Your task to perform on an android device: turn off picture-in-picture Image 0: 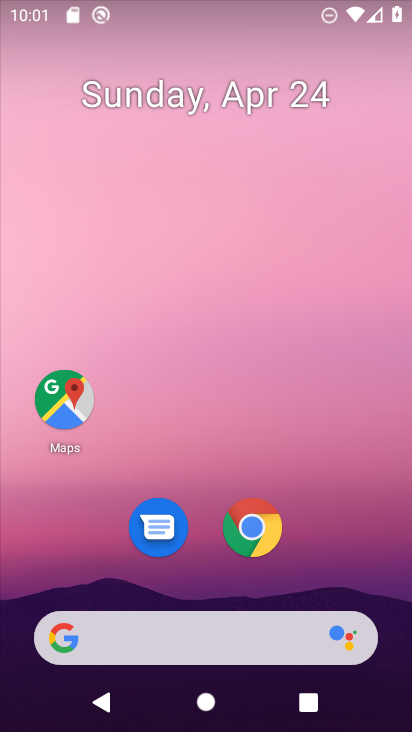
Step 0: drag from (402, 623) to (269, 26)
Your task to perform on an android device: turn off picture-in-picture Image 1: 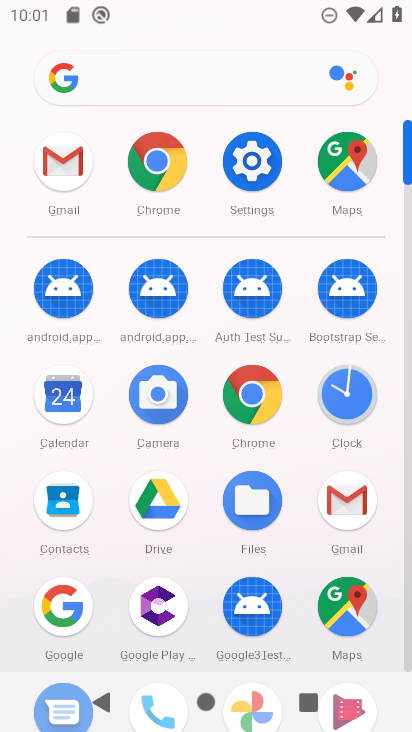
Step 1: click (274, 397)
Your task to perform on an android device: turn off picture-in-picture Image 2: 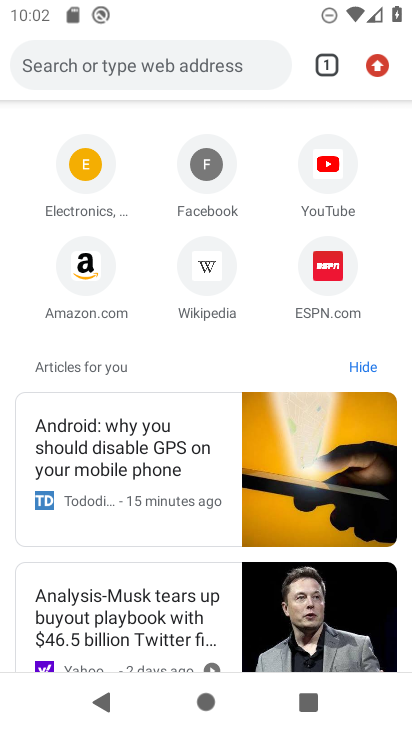
Step 2: task complete